Your task to perform on an android device: Open Youtube and go to "Your channel" Image 0: 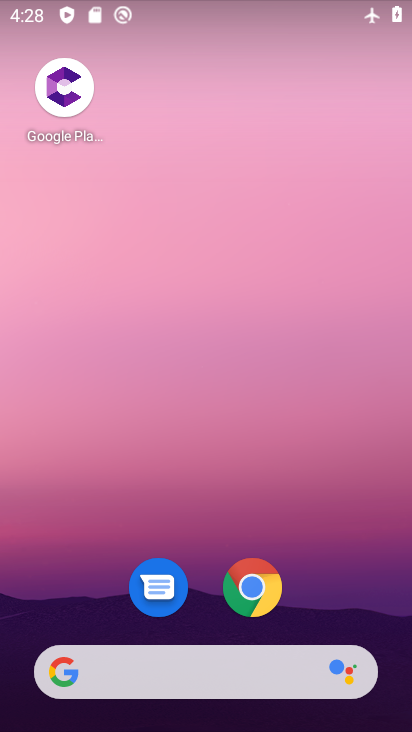
Step 0: press home button
Your task to perform on an android device: Open Youtube and go to "Your channel" Image 1: 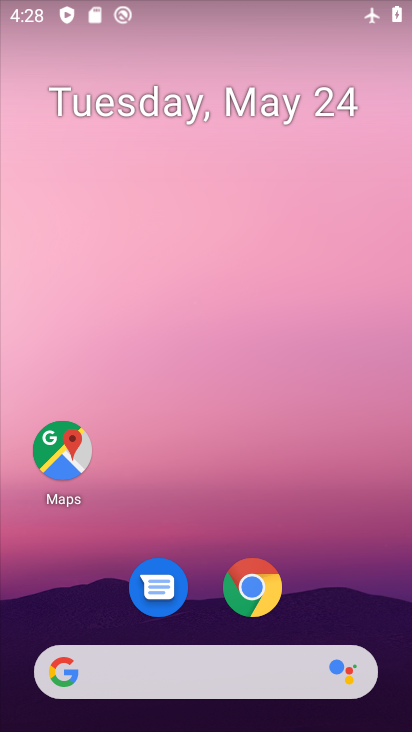
Step 1: drag from (339, 562) to (248, 14)
Your task to perform on an android device: Open Youtube and go to "Your channel" Image 2: 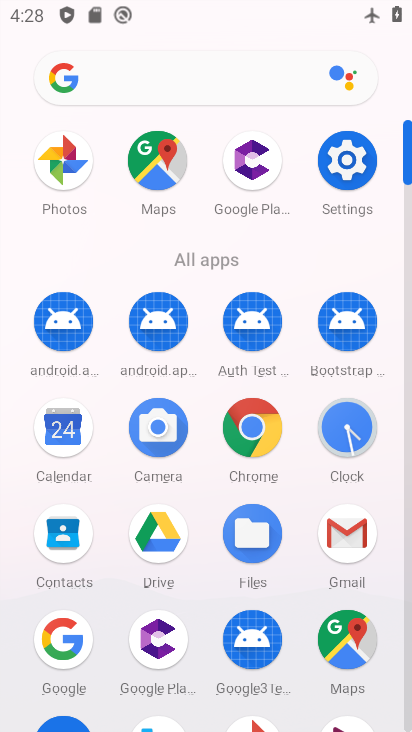
Step 2: drag from (302, 696) to (294, 187)
Your task to perform on an android device: Open Youtube and go to "Your channel" Image 3: 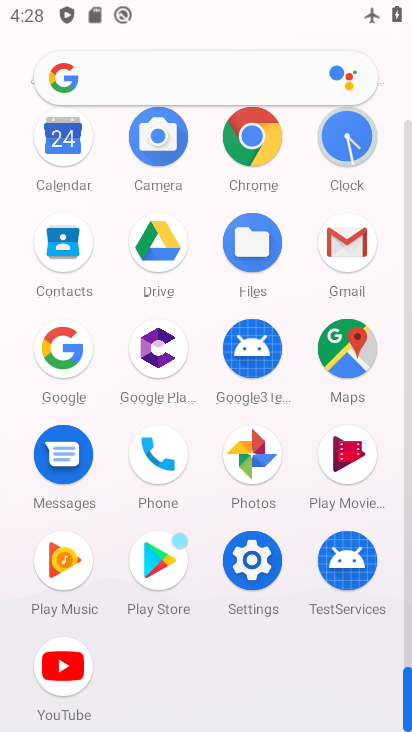
Step 3: click (71, 671)
Your task to perform on an android device: Open Youtube and go to "Your channel" Image 4: 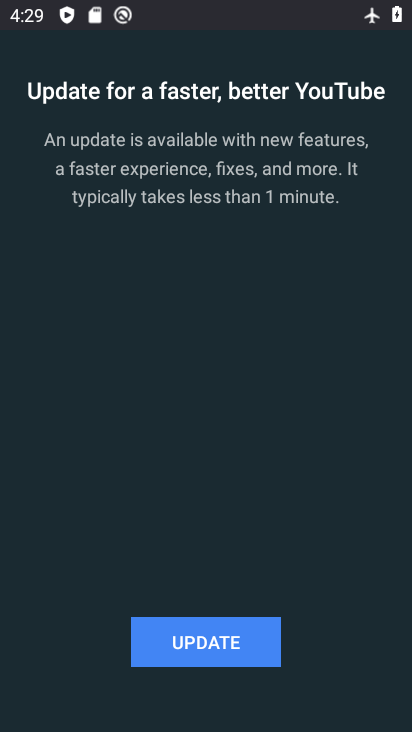
Step 4: click (248, 642)
Your task to perform on an android device: Open Youtube and go to "Your channel" Image 5: 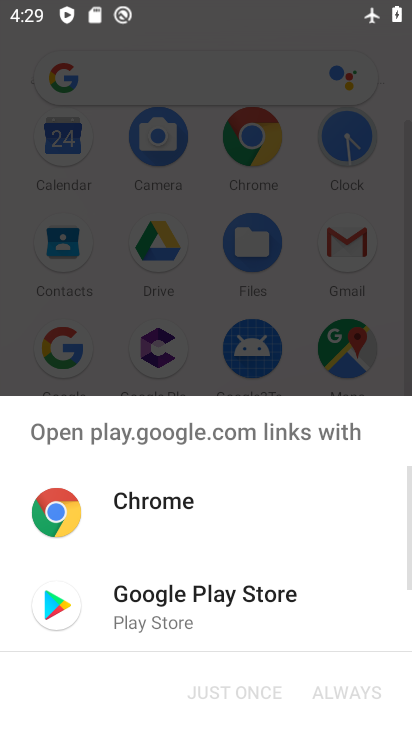
Step 5: click (247, 694)
Your task to perform on an android device: Open Youtube and go to "Your channel" Image 6: 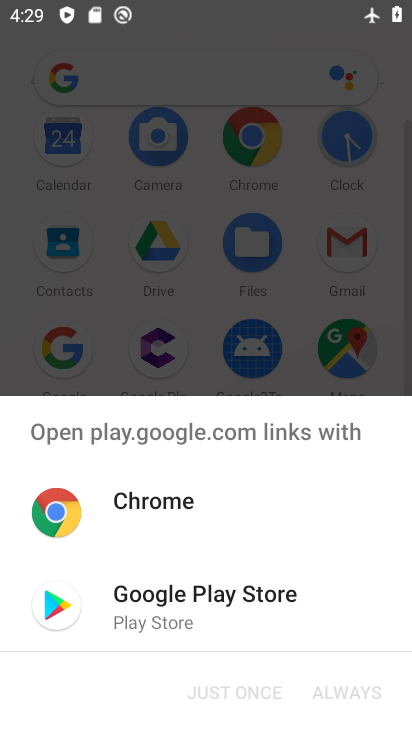
Step 6: click (180, 592)
Your task to perform on an android device: Open Youtube and go to "Your channel" Image 7: 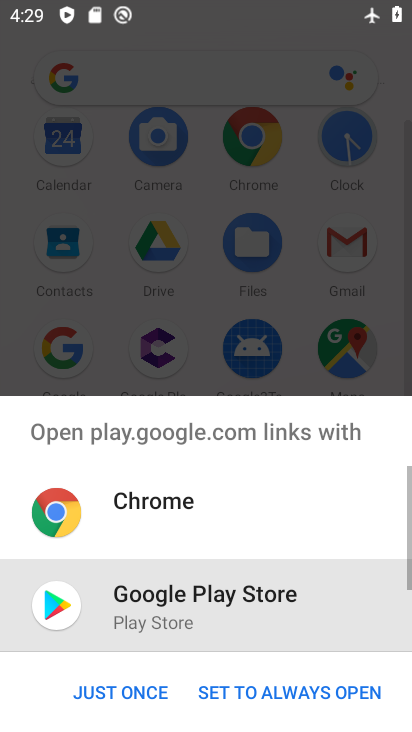
Step 7: click (216, 687)
Your task to perform on an android device: Open Youtube and go to "Your channel" Image 8: 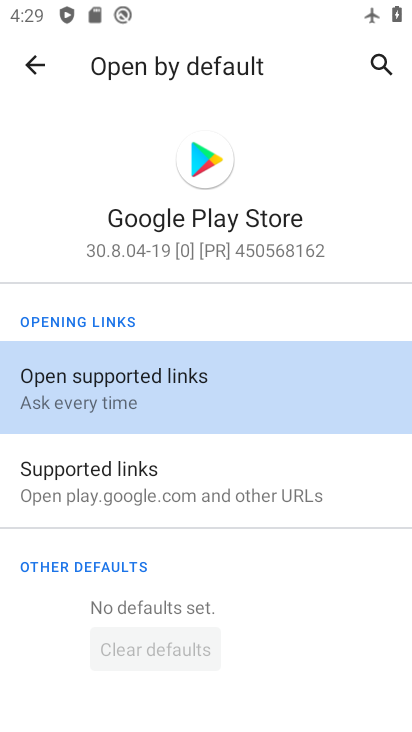
Step 8: click (35, 66)
Your task to perform on an android device: Open Youtube and go to "Your channel" Image 9: 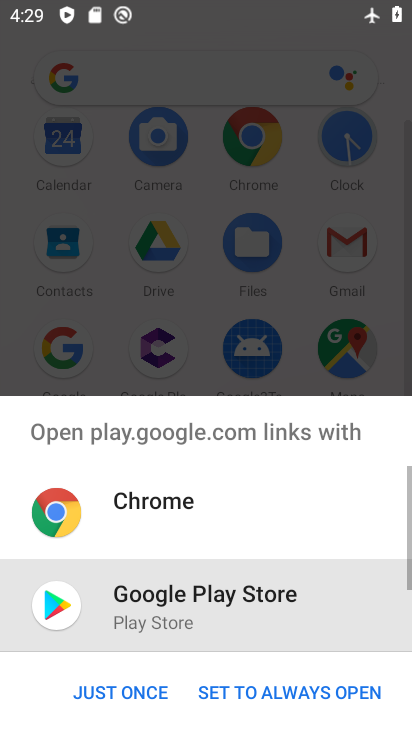
Step 9: click (136, 696)
Your task to perform on an android device: Open Youtube and go to "Your channel" Image 10: 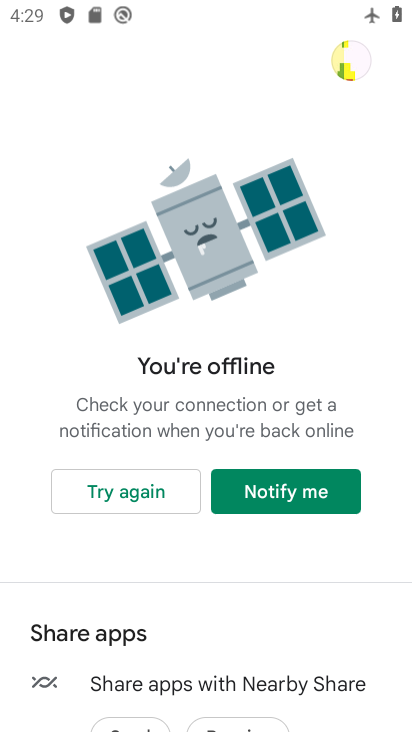
Step 10: click (154, 487)
Your task to perform on an android device: Open Youtube and go to "Your channel" Image 11: 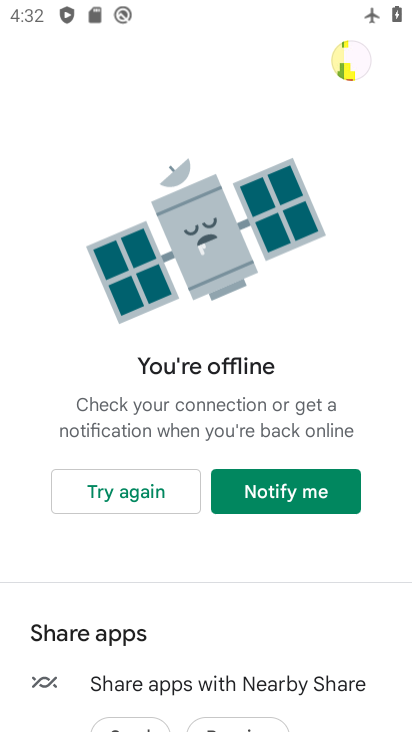
Step 11: task complete